Your task to perform on an android device: turn on the 12-hour format for clock Image 0: 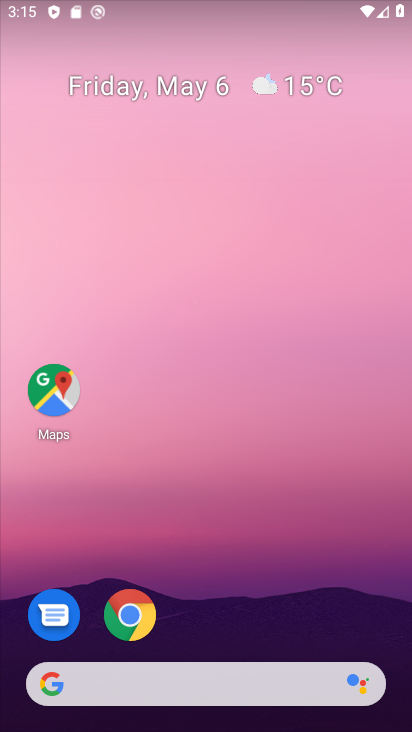
Step 0: drag from (324, 617) to (197, 106)
Your task to perform on an android device: turn on the 12-hour format for clock Image 1: 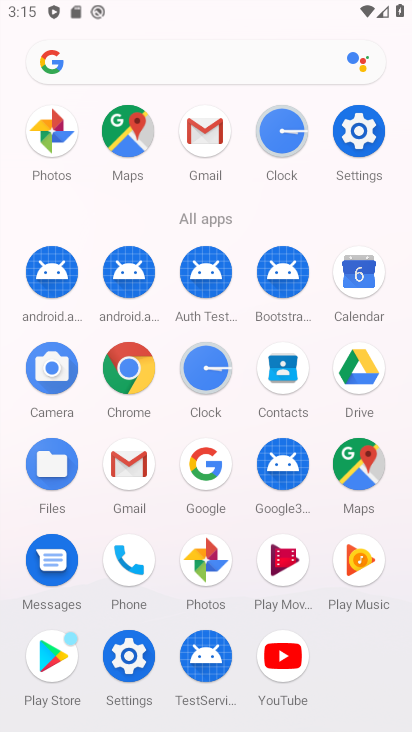
Step 1: click (205, 381)
Your task to perform on an android device: turn on the 12-hour format for clock Image 2: 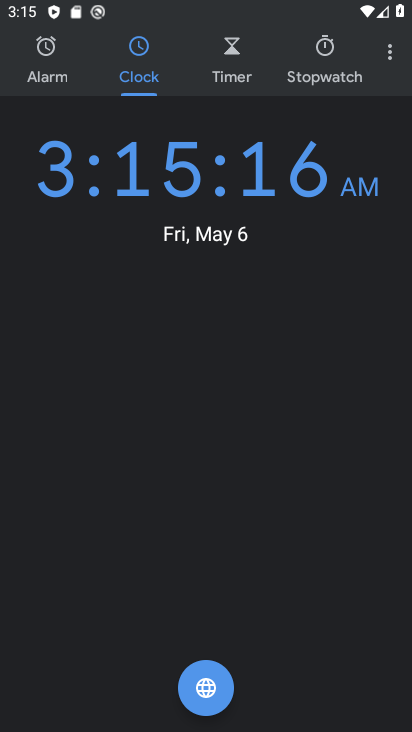
Step 2: click (387, 52)
Your task to perform on an android device: turn on the 12-hour format for clock Image 3: 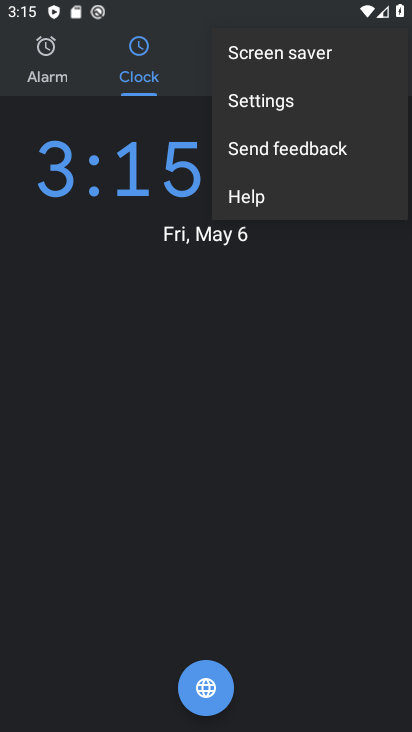
Step 3: click (261, 99)
Your task to perform on an android device: turn on the 12-hour format for clock Image 4: 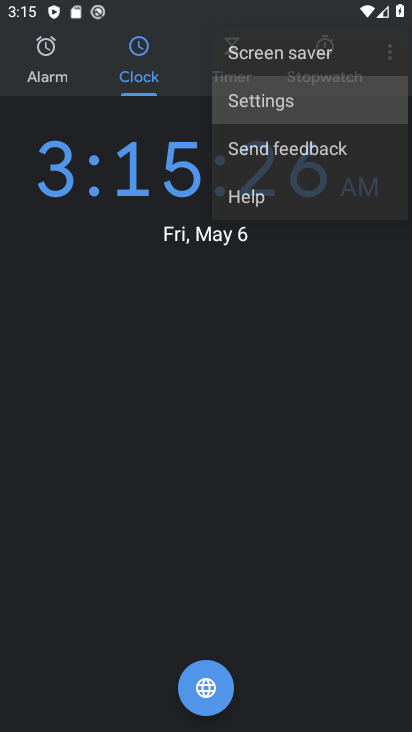
Step 4: click (262, 99)
Your task to perform on an android device: turn on the 12-hour format for clock Image 5: 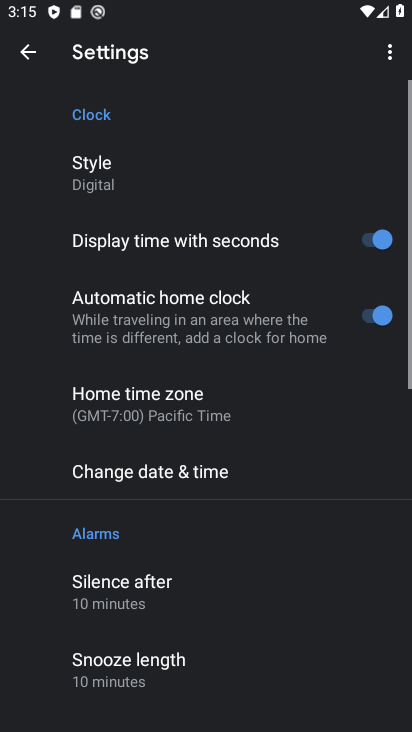
Step 5: click (262, 99)
Your task to perform on an android device: turn on the 12-hour format for clock Image 6: 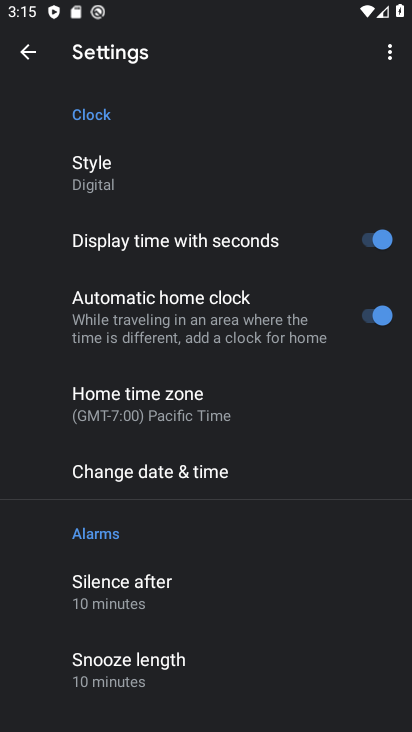
Step 6: drag from (174, 591) to (164, 205)
Your task to perform on an android device: turn on the 12-hour format for clock Image 7: 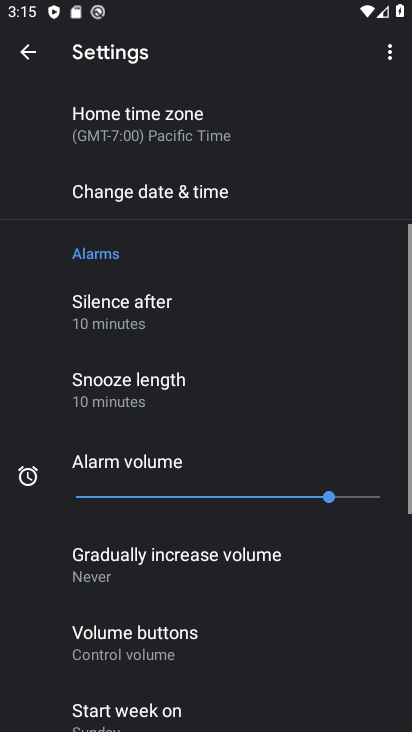
Step 7: drag from (243, 566) to (203, 311)
Your task to perform on an android device: turn on the 12-hour format for clock Image 8: 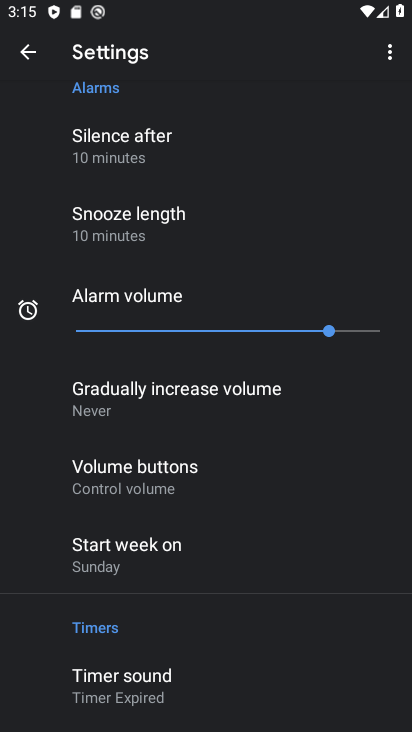
Step 8: drag from (235, 562) to (224, 217)
Your task to perform on an android device: turn on the 12-hour format for clock Image 9: 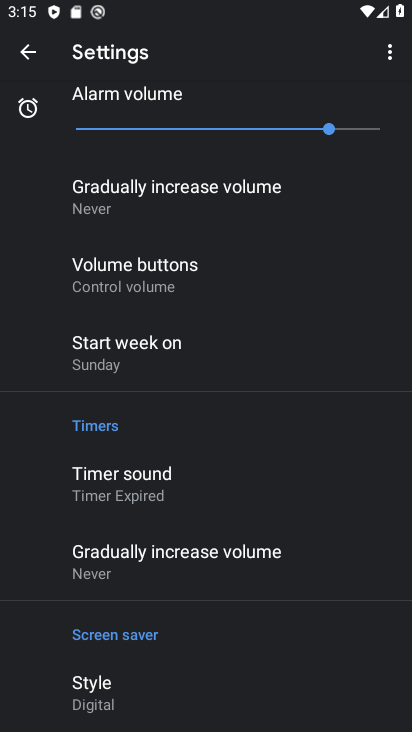
Step 9: drag from (185, 563) to (142, 233)
Your task to perform on an android device: turn on the 12-hour format for clock Image 10: 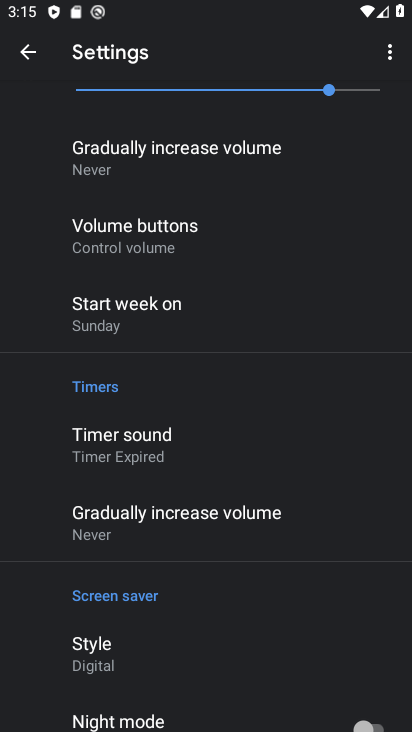
Step 10: drag from (189, 564) to (96, 84)
Your task to perform on an android device: turn on the 12-hour format for clock Image 11: 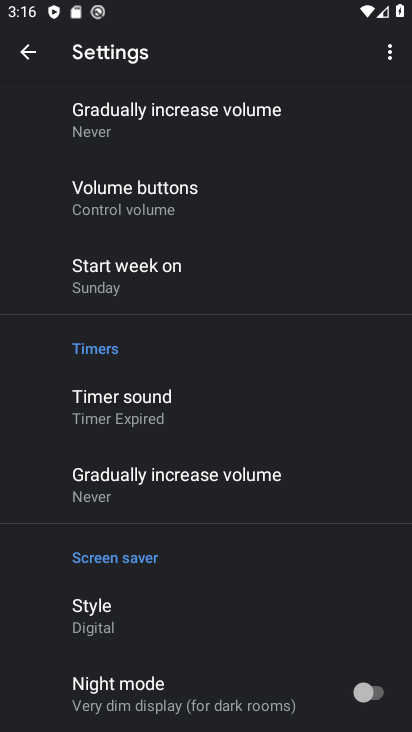
Step 11: drag from (193, 598) to (64, 153)
Your task to perform on an android device: turn on the 12-hour format for clock Image 12: 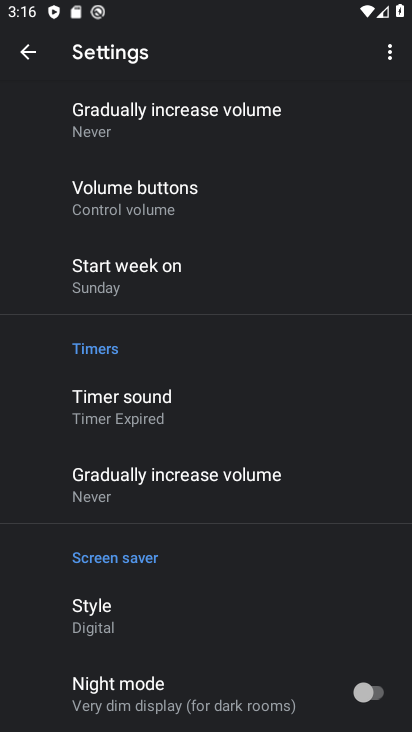
Step 12: drag from (170, 202) to (277, 589)
Your task to perform on an android device: turn on the 12-hour format for clock Image 13: 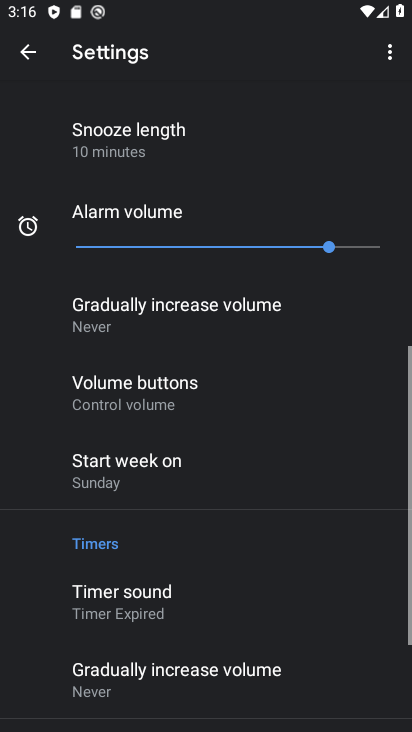
Step 13: drag from (180, 161) to (205, 578)
Your task to perform on an android device: turn on the 12-hour format for clock Image 14: 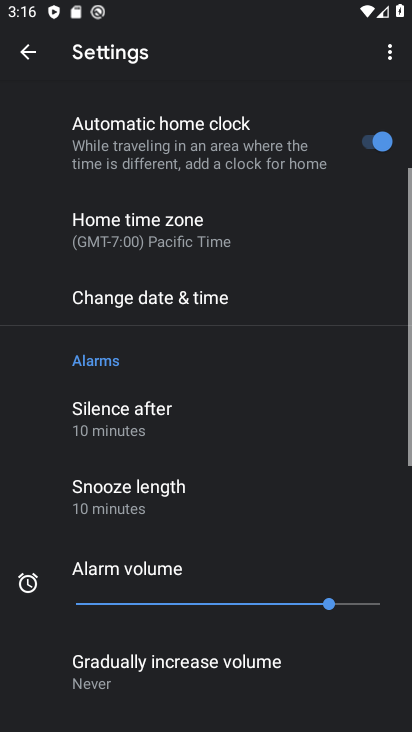
Step 14: drag from (109, 156) to (206, 507)
Your task to perform on an android device: turn on the 12-hour format for clock Image 15: 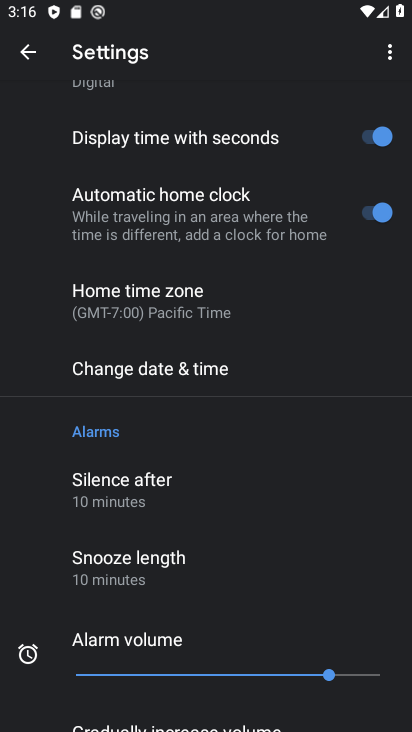
Step 15: drag from (209, 473) to (185, 251)
Your task to perform on an android device: turn on the 12-hour format for clock Image 16: 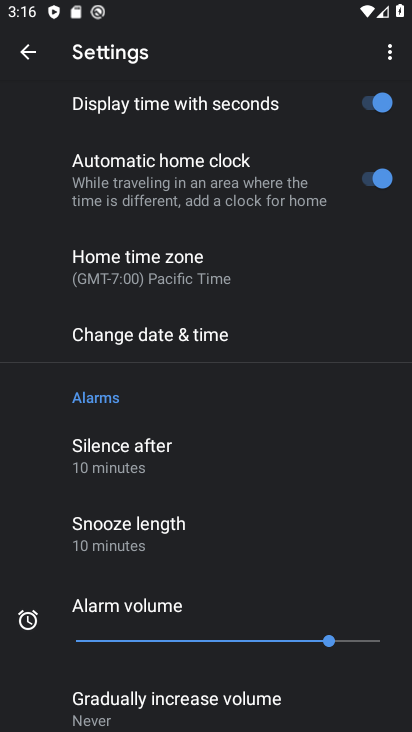
Step 16: click (163, 271)
Your task to perform on an android device: turn on the 12-hour format for clock Image 17: 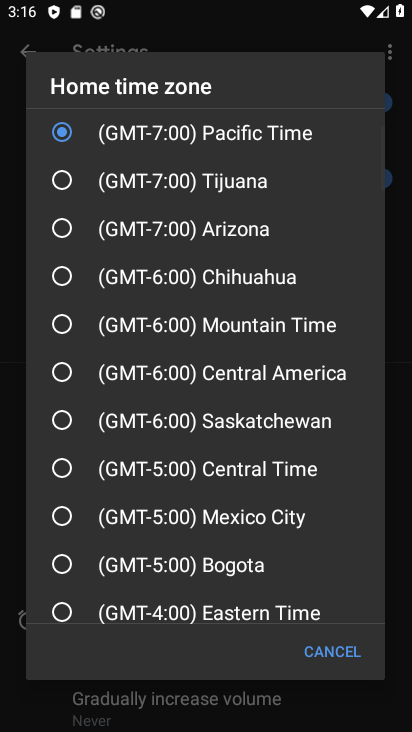
Step 17: click (335, 643)
Your task to perform on an android device: turn on the 12-hour format for clock Image 18: 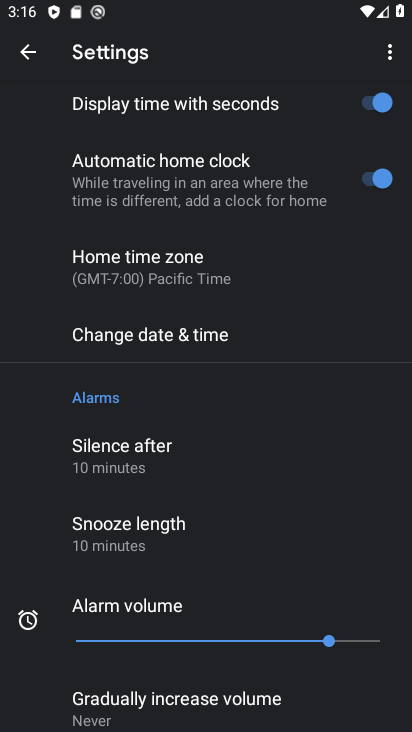
Step 18: click (161, 343)
Your task to perform on an android device: turn on the 12-hour format for clock Image 19: 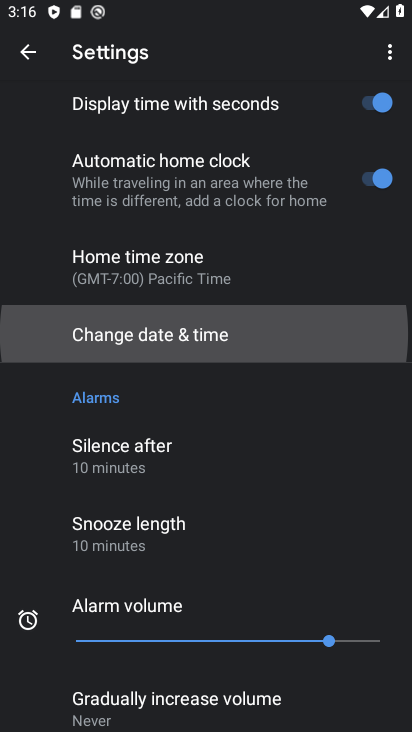
Step 19: click (162, 343)
Your task to perform on an android device: turn on the 12-hour format for clock Image 20: 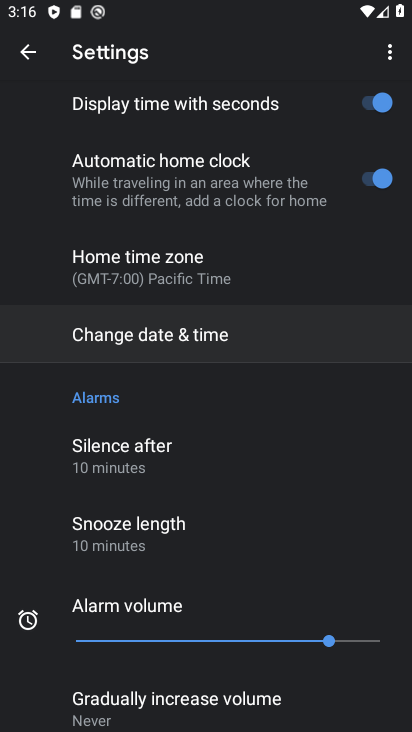
Step 20: click (163, 342)
Your task to perform on an android device: turn on the 12-hour format for clock Image 21: 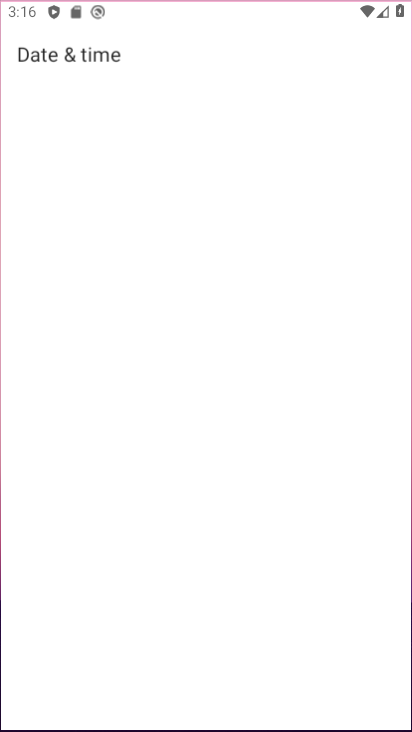
Step 21: click (170, 343)
Your task to perform on an android device: turn on the 12-hour format for clock Image 22: 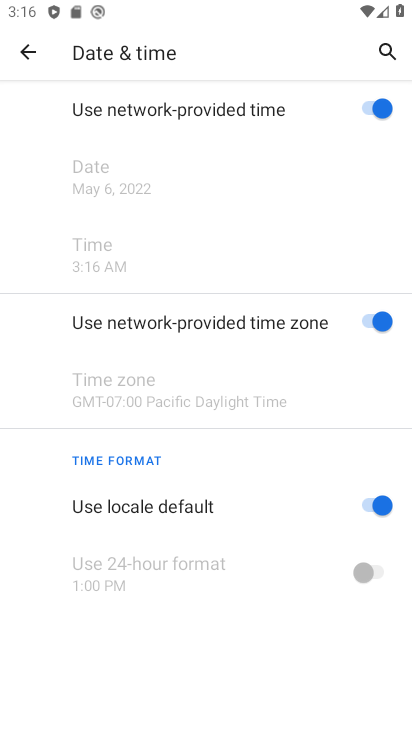
Step 22: click (379, 511)
Your task to perform on an android device: turn on the 12-hour format for clock Image 23: 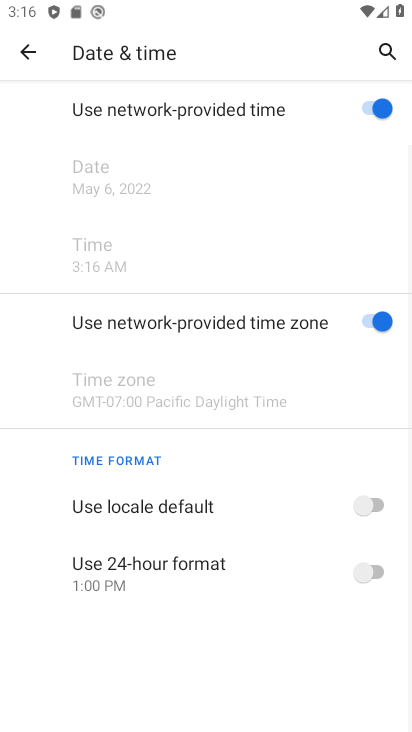
Step 23: click (370, 569)
Your task to perform on an android device: turn on the 12-hour format for clock Image 24: 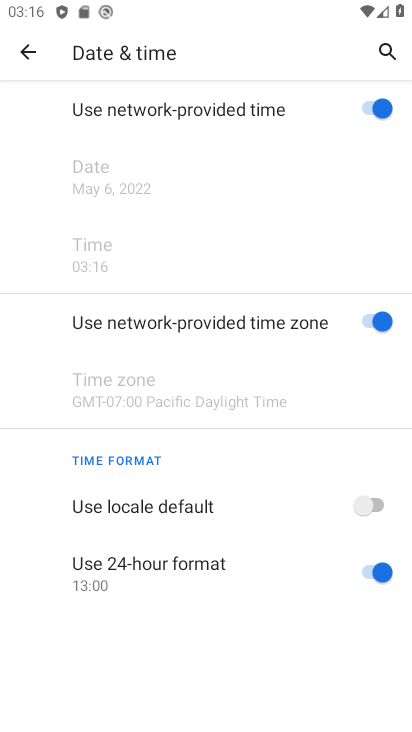
Step 24: task complete